Your task to perform on an android device: toggle translation in the chrome app Image 0: 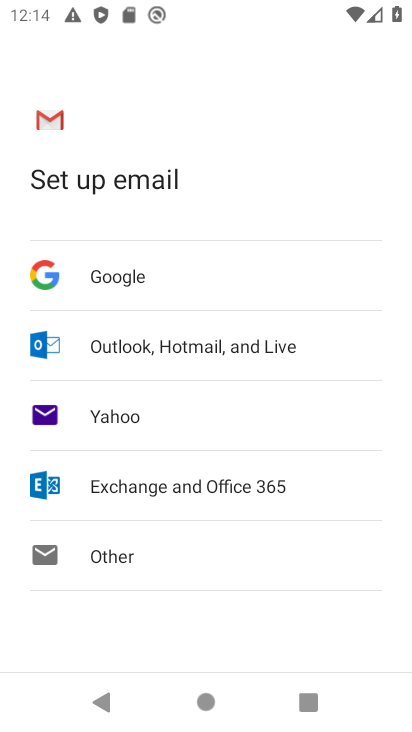
Step 0: press home button
Your task to perform on an android device: toggle translation in the chrome app Image 1: 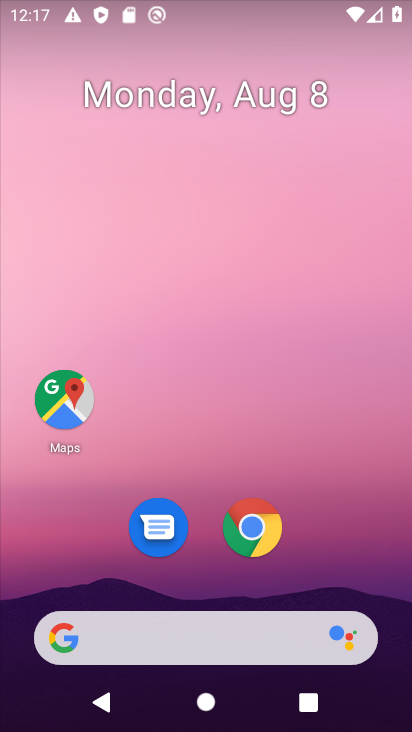
Step 1: click (255, 511)
Your task to perform on an android device: toggle translation in the chrome app Image 2: 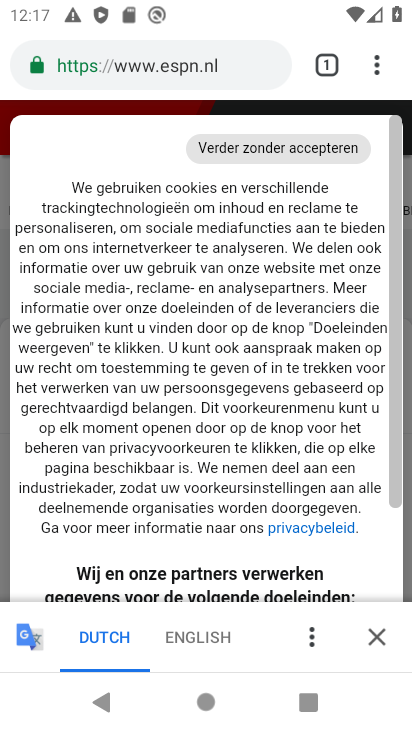
Step 2: click (373, 638)
Your task to perform on an android device: toggle translation in the chrome app Image 3: 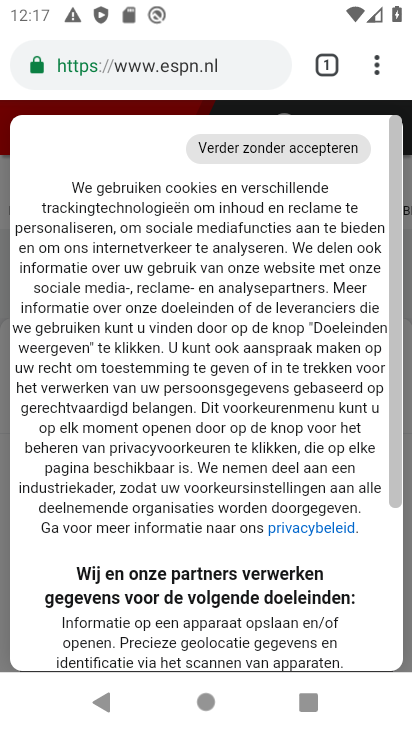
Step 3: task complete